Your task to perform on an android device: turn off data saver in the chrome app Image 0: 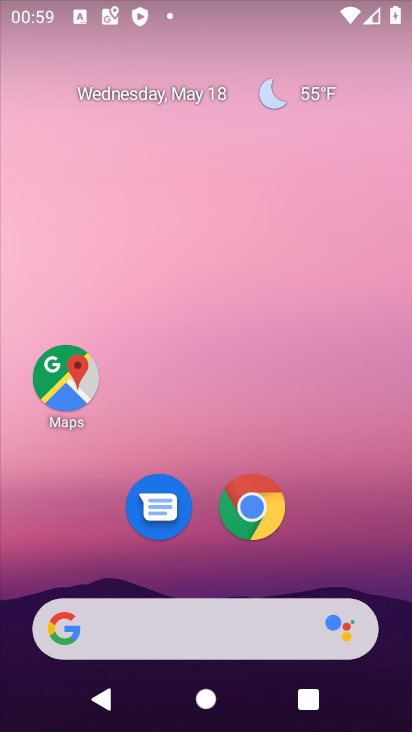
Step 0: click (250, 504)
Your task to perform on an android device: turn off data saver in the chrome app Image 1: 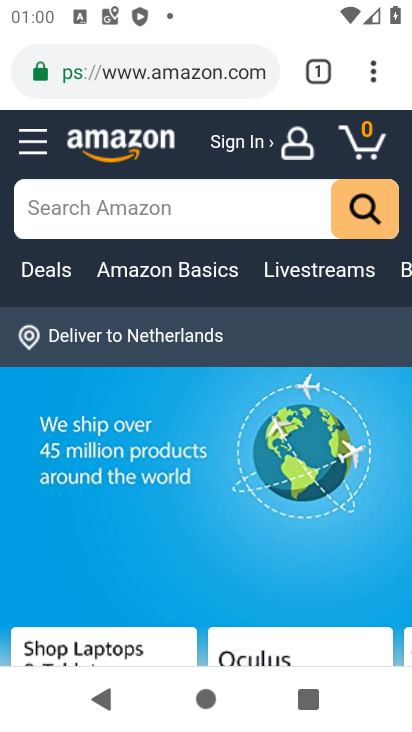
Step 1: click (371, 74)
Your task to perform on an android device: turn off data saver in the chrome app Image 2: 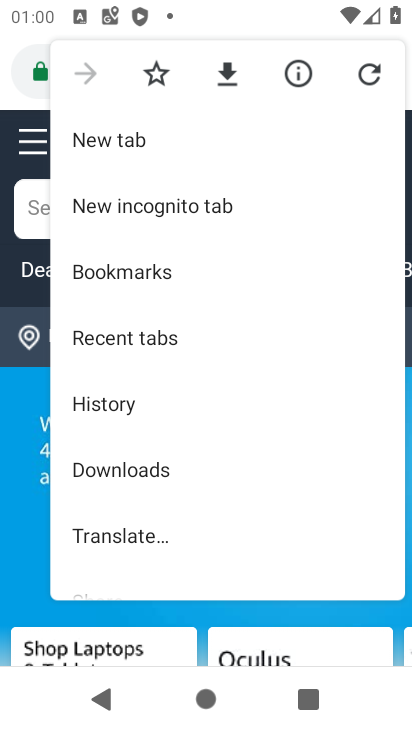
Step 2: drag from (192, 495) to (265, 150)
Your task to perform on an android device: turn off data saver in the chrome app Image 3: 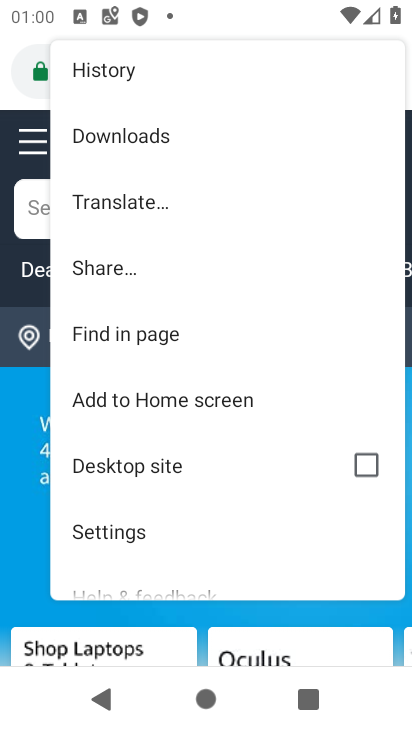
Step 3: click (107, 539)
Your task to perform on an android device: turn off data saver in the chrome app Image 4: 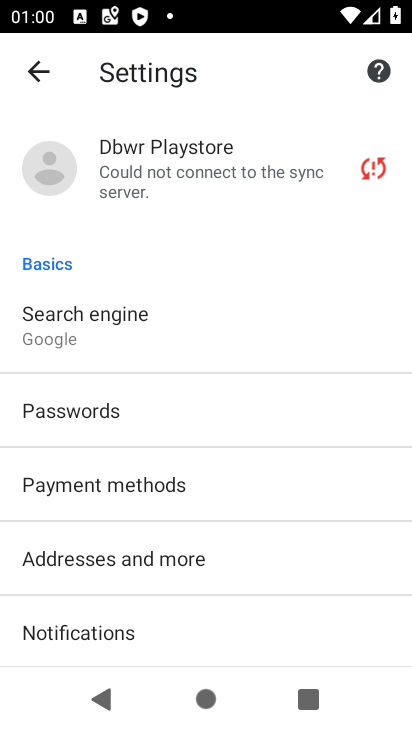
Step 4: drag from (287, 581) to (237, 292)
Your task to perform on an android device: turn off data saver in the chrome app Image 5: 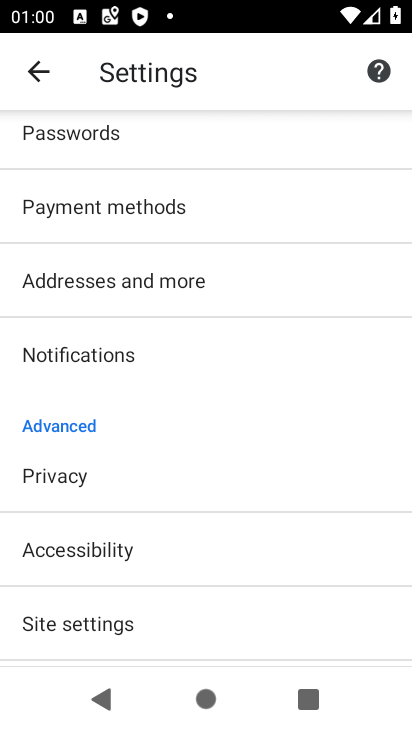
Step 5: drag from (191, 589) to (198, 299)
Your task to perform on an android device: turn off data saver in the chrome app Image 6: 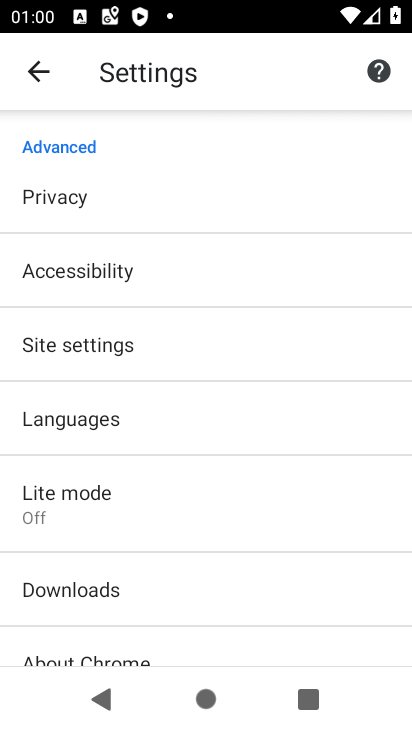
Step 6: click (59, 496)
Your task to perform on an android device: turn off data saver in the chrome app Image 7: 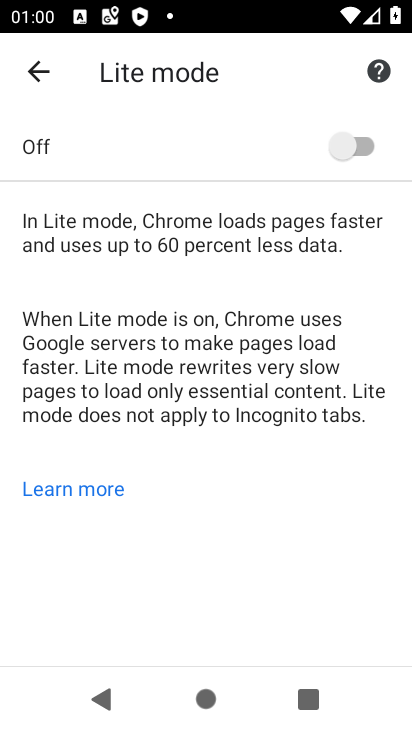
Step 7: task complete